Your task to perform on an android device: What's on my calendar today? Image 0: 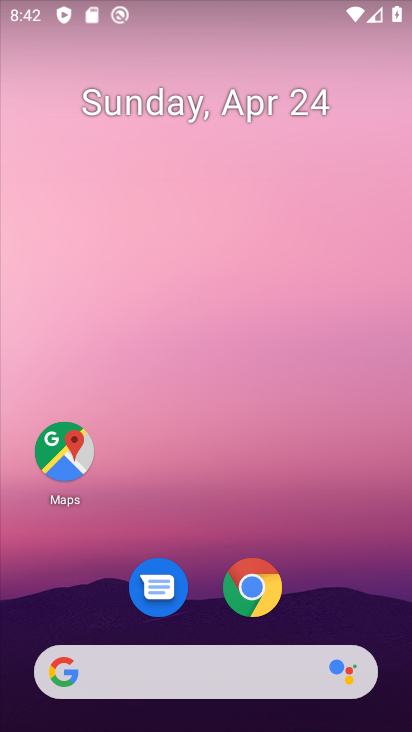
Step 0: drag from (331, 575) to (274, 97)
Your task to perform on an android device: What's on my calendar today? Image 1: 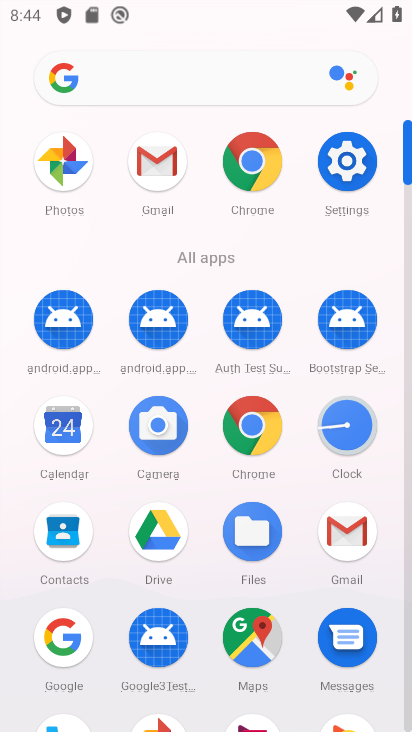
Step 1: click (56, 429)
Your task to perform on an android device: What's on my calendar today? Image 2: 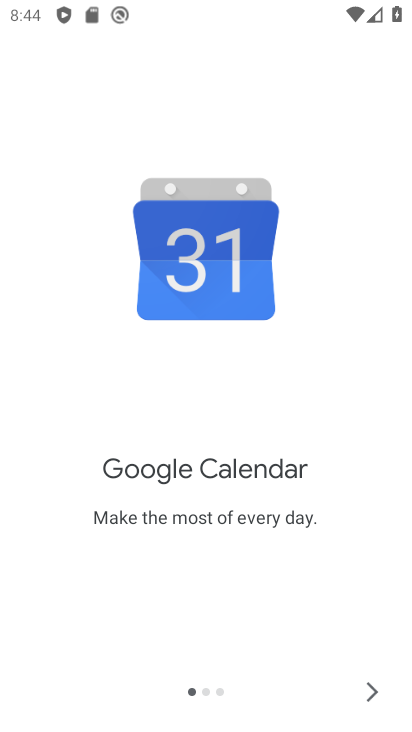
Step 2: click (375, 689)
Your task to perform on an android device: What's on my calendar today? Image 3: 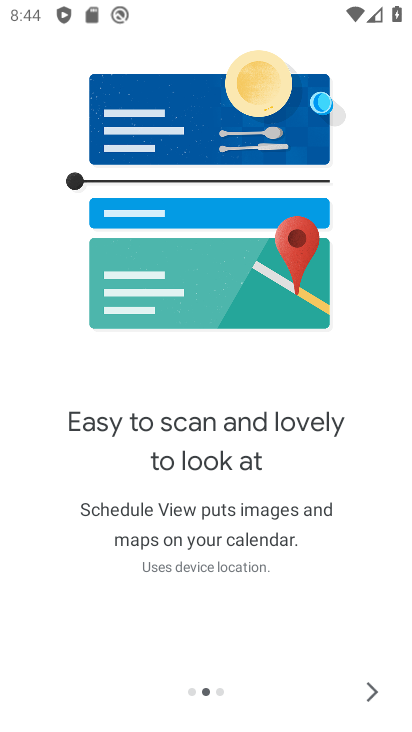
Step 3: click (375, 689)
Your task to perform on an android device: What's on my calendar today? Image 4: 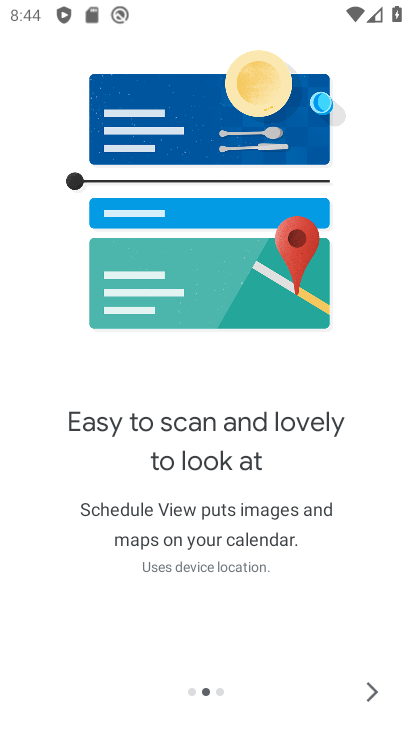
Step 4: click (375, 689)
Your task to perform on an android device: What's on my calendar today? Image 5: 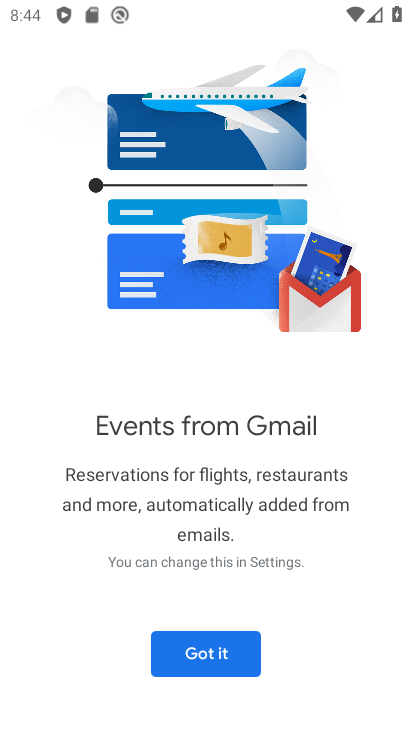
Step 5: click (250, 642)
Your task to perform on an android device: What's on my calendar today? Image 6: 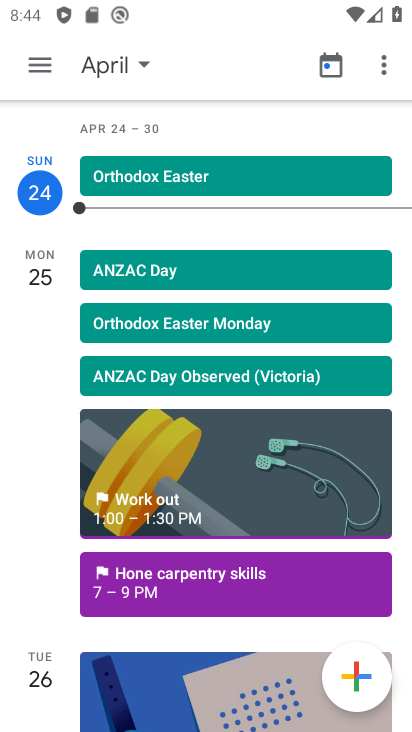
Step 6: click (126, 53)
Your task to perform on an android device: What's on my calendar today? Image 7: 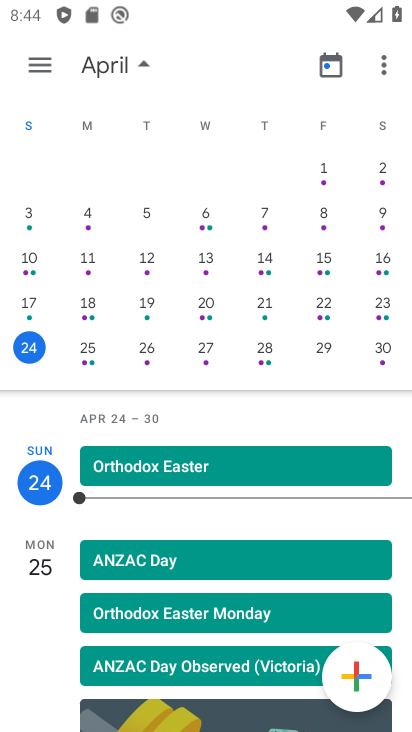
Step 7: task complete